Your task to perform on an android device: turn on airplane mode Image 0: 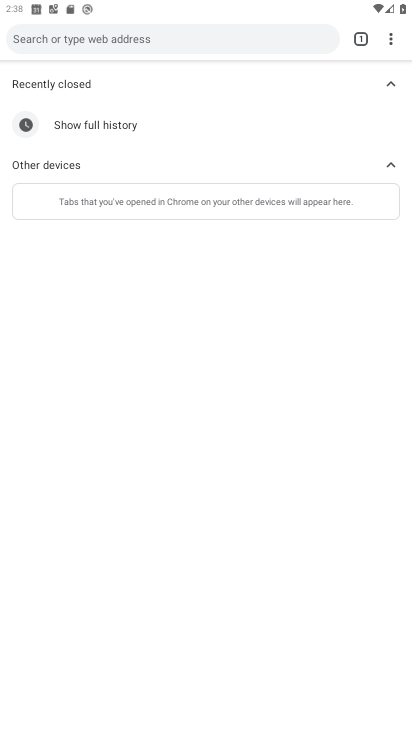
Step 0: press home button
Your task to perform on an android device: turn on airplane mode Image 1: 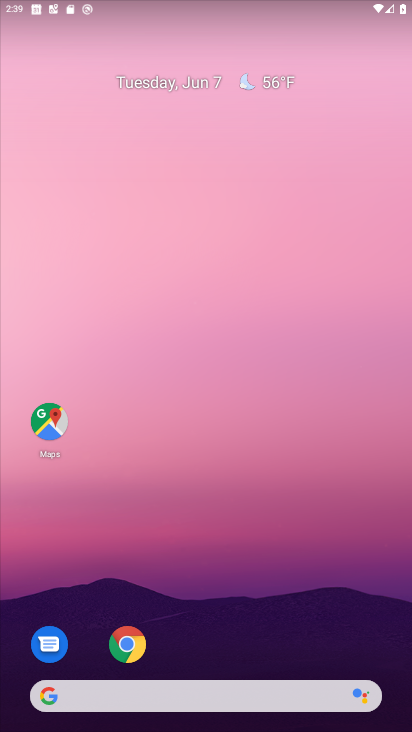
Step 1: drag from (280, 8) to (327, 511)
Your task to perform on an android device: turn on airplane mode Image 2: 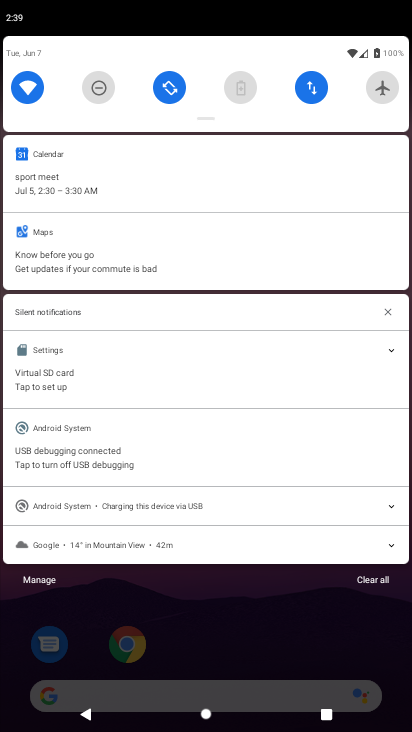
Step 2: click (381, 89)
Your task to perform on an android device: turn on airplane mode Image 3: 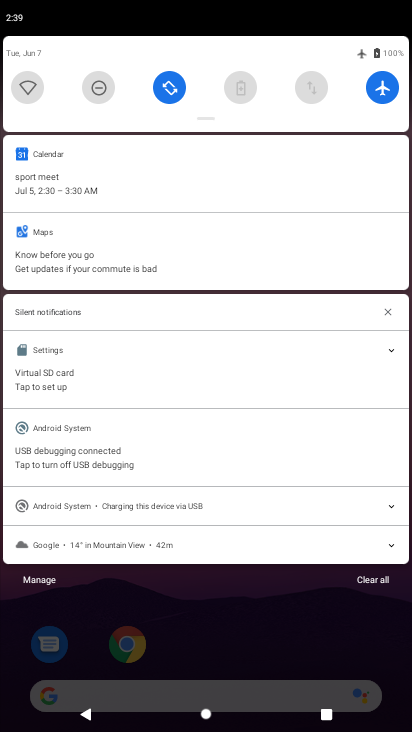
Step 3: task complete